Your task to perform on an android device: change timer sound Image 0: 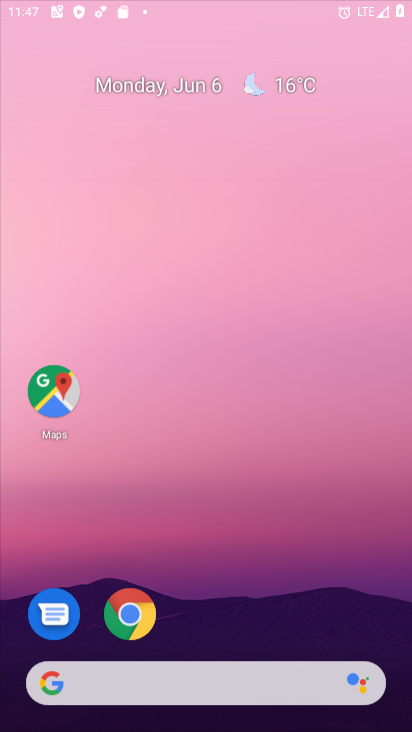
Step 0: press home button
Your task to perform on an android device: change timer sound Image 1: 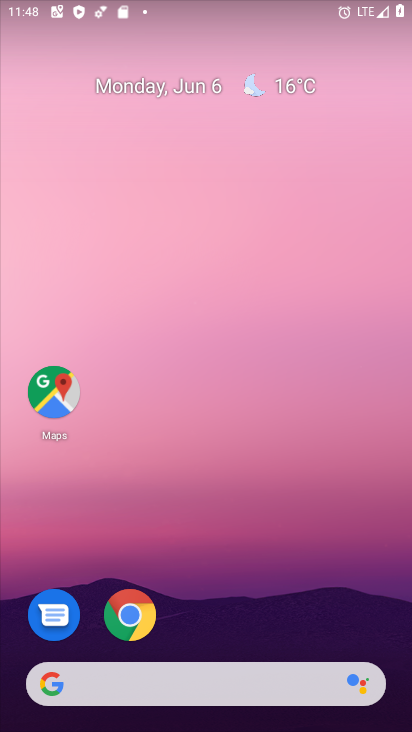
Step 1: drag from (228, 641) to (225, 53)
Your task to perform on an android device: change timer sound Image 2: 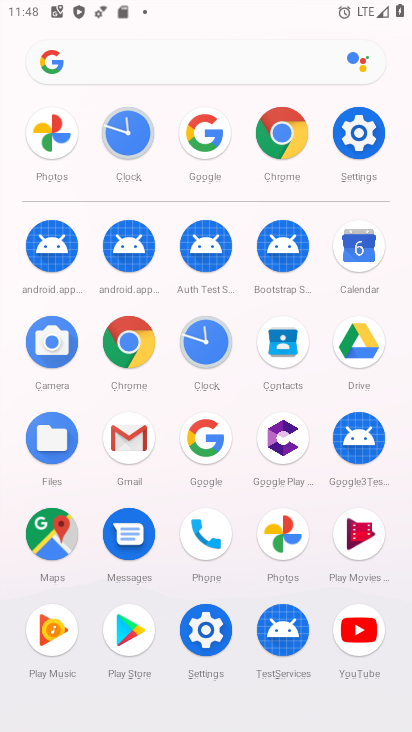
Step 2: click (201, 335)
Your task to perform on an android device: change timer sound Image 3: 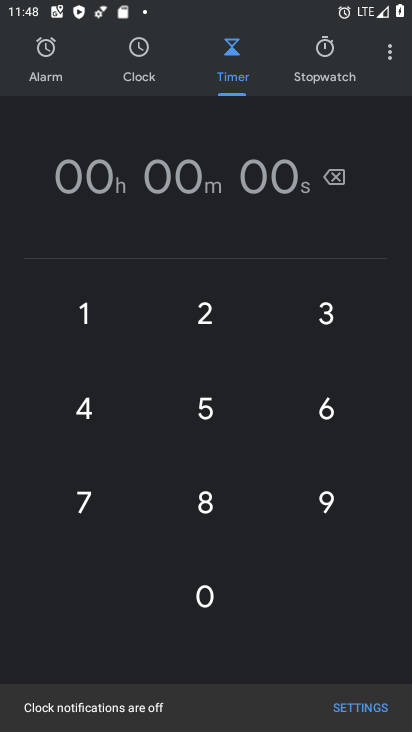
Step 3: click (382, 56)
Your task to perform on an android device: change timer sound Image 4: 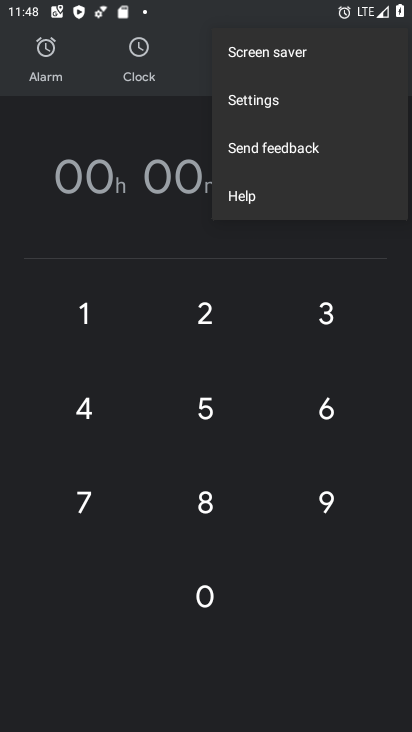
Step 4: click (296, 95)
Your task to perform on an android device: change timer sound Image 5: 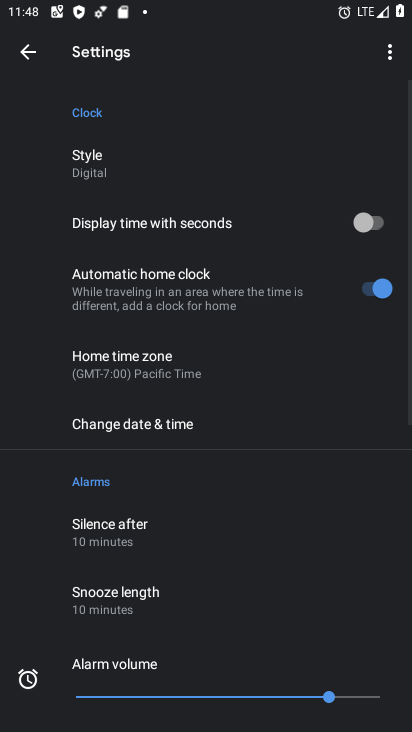
Step 5: drag from (188, 627) to (193, 139)
Your task to perform on an android device: change timer sound Image 6: 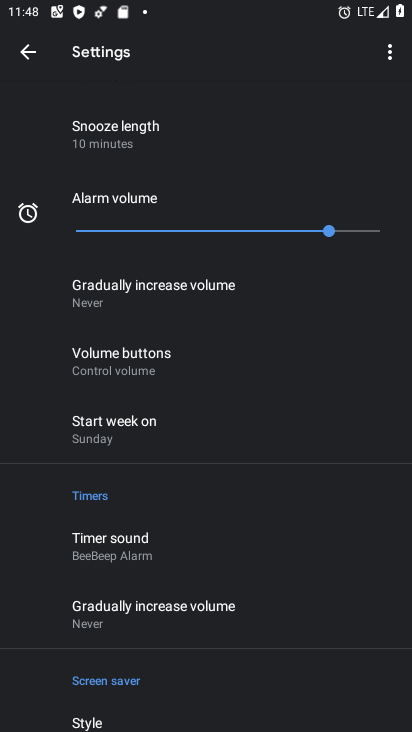
Step 6: click (182, 531)
Your task to perform on an android device: change timer sound Image 7: 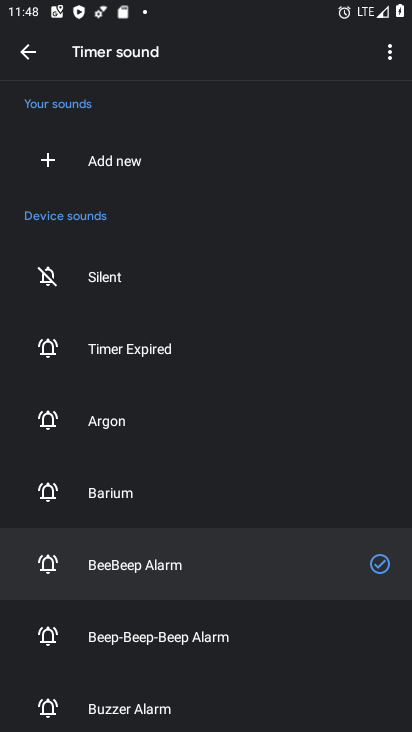
Step 7: task complete